Your task to perform on an android device: change alarm snooze length Image 0: 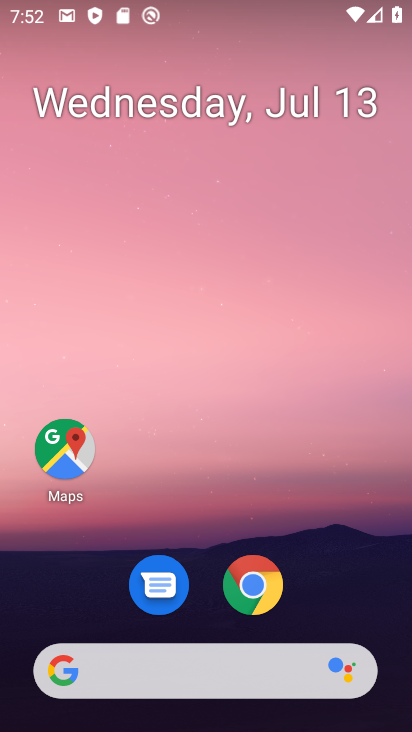
Step 0: drag from (341, 578) to (355, 21)
Your task to perform on an android device: change alarm snooze length Image 1: 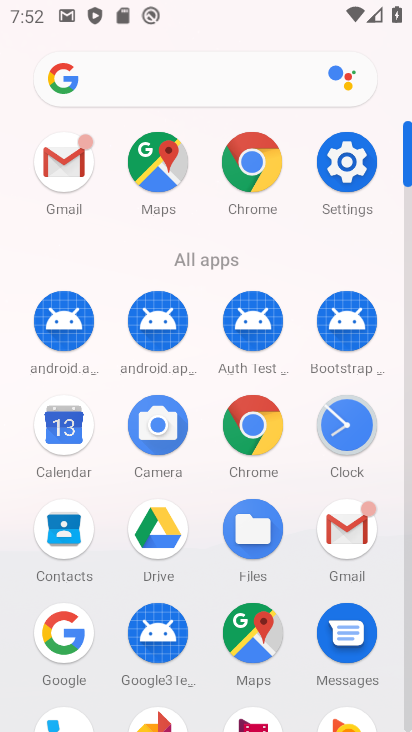
Step 1: click (343, 418)
Your task to perform on an android device: change alarm snooze length Image 2: 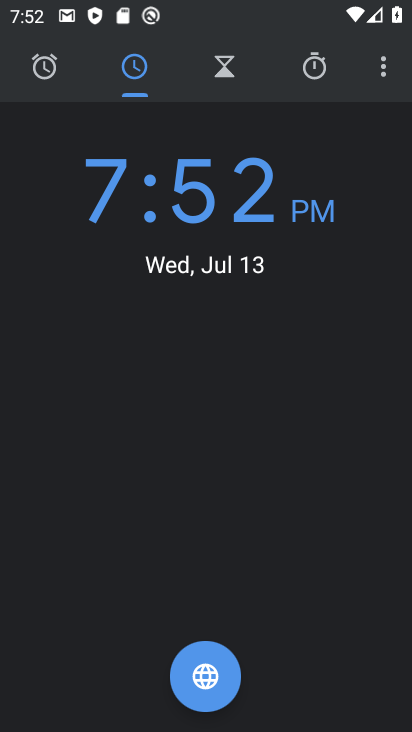
Step 2: click (386, 70)
Your task to perform on an android device: change alarm snooze length Image 3: 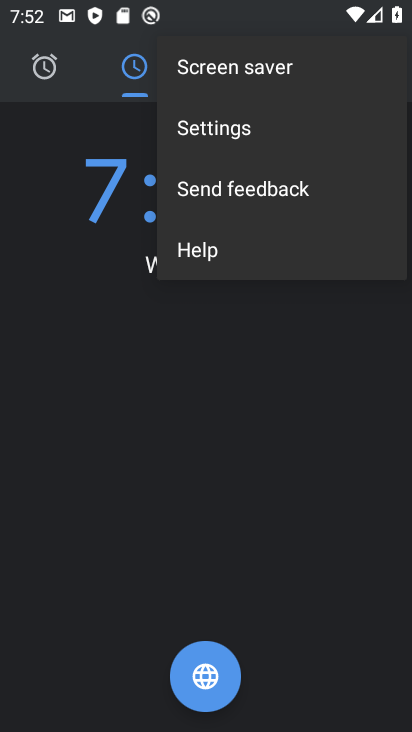
Step 3: click (289, 134)
Your task to perform on an android device: change alarm snooze length Image 4: 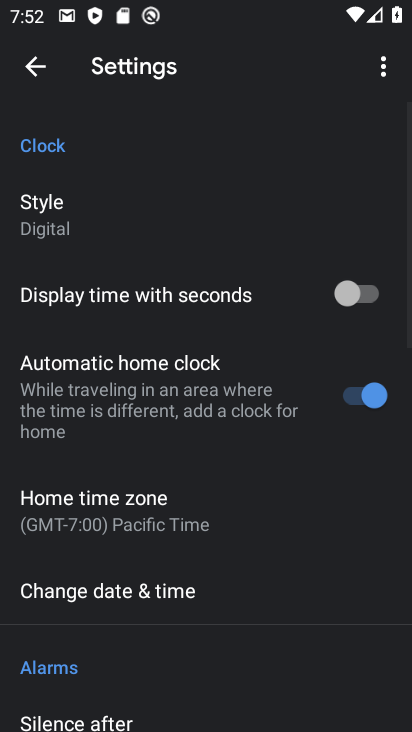
Step 4: drag from (183, 553) to (202, 39)
Your task to perform on an android device: change alarm snooze length Image 5: 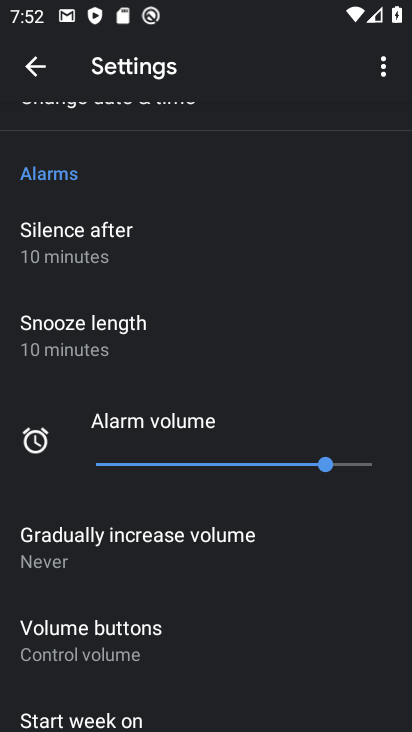
Step 5: click (121, 327)
Your task to perform on an android device: change alarm snooze length Image 6: 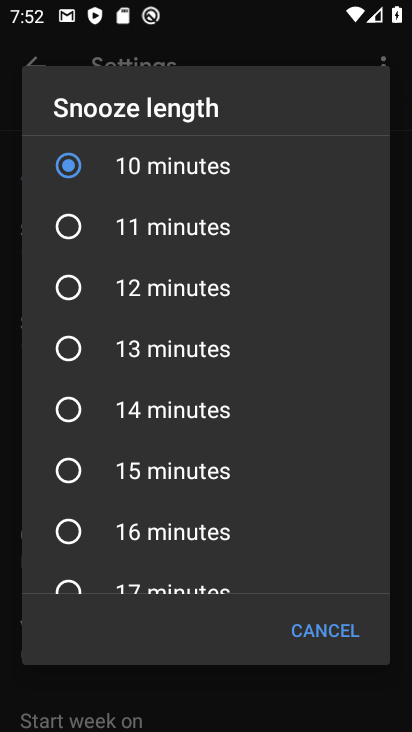
Step 6: click (79, 286)
Your task to perform on an android device: change alarm snooze length Image 7: 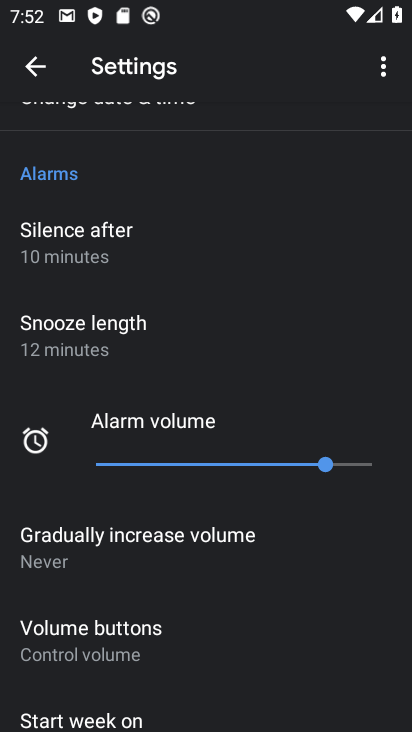
Step 7: task complete